Your task to perform on an android device: turn notification dots off Image 0: 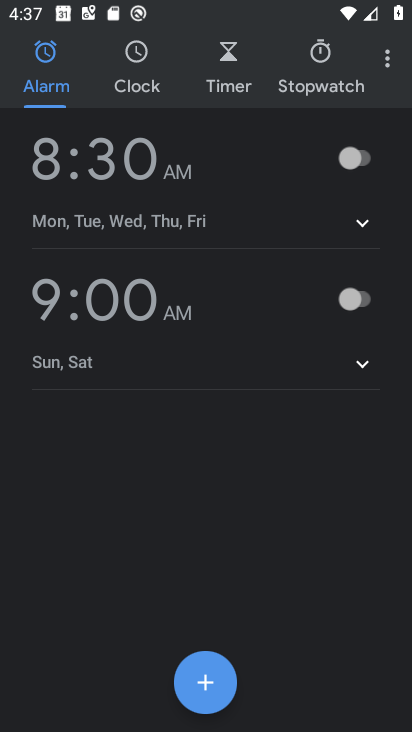
Step 0: press home button
Your task to perform on an android device: turn notification dots off Image 1: 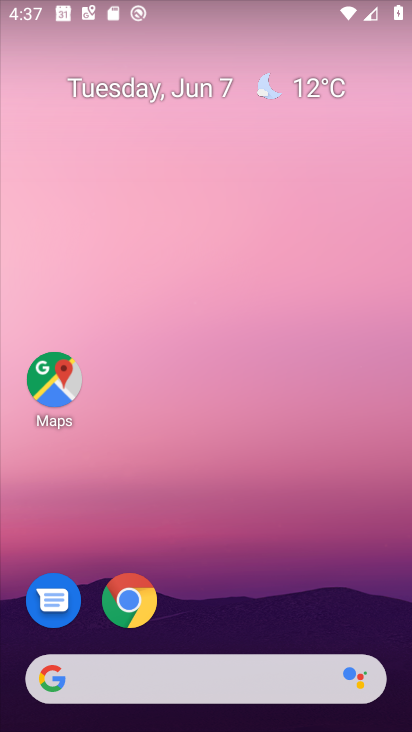
Step 1: drag from (213, 294) to (197, 132)
Your task to perform on an android device: turn notification dots off Image 2: 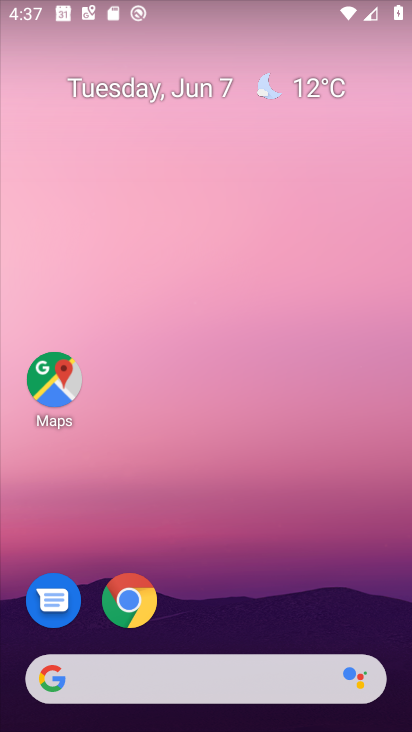
Step 2: drag from (273, 526) to (228, 172)
Your task to perform on an android device: turn notification dots off Image 3: 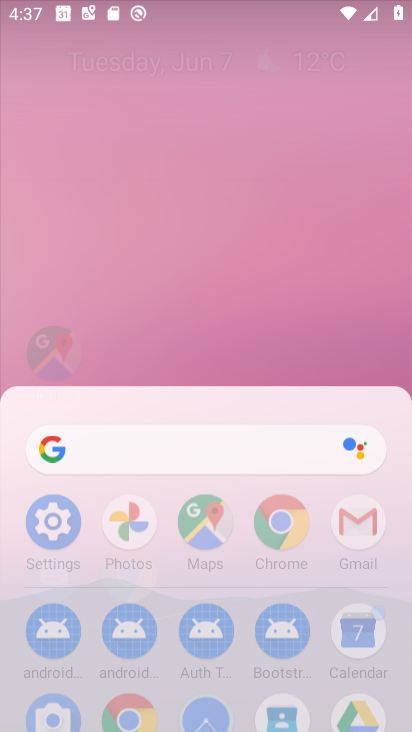
Step 3: click (224, 120)
Your task to perform on an android device: turn notification dots off Image 4: 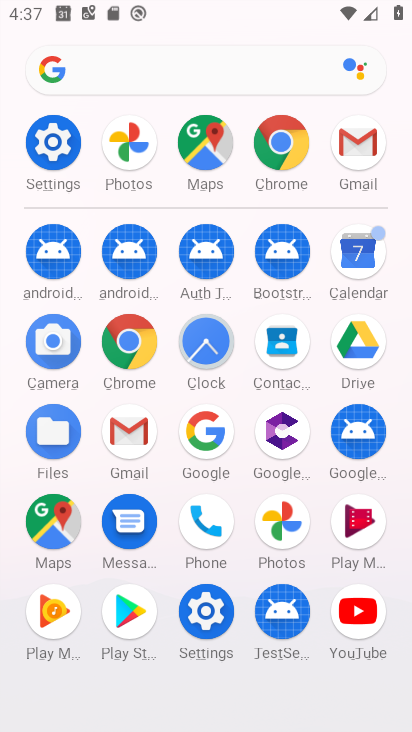
Step 4: click (47, 139)
Your task to perform on an android device: turn notification dots off Image 5: 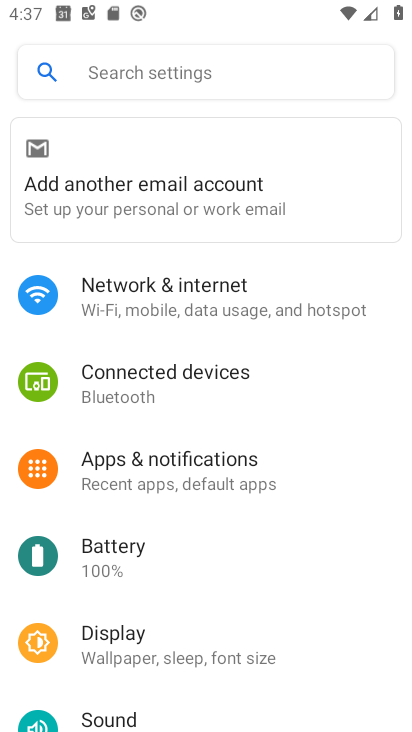
Step 5: click (196, 470)
Your task to perform on an android device: turn notification dots off Image 6: 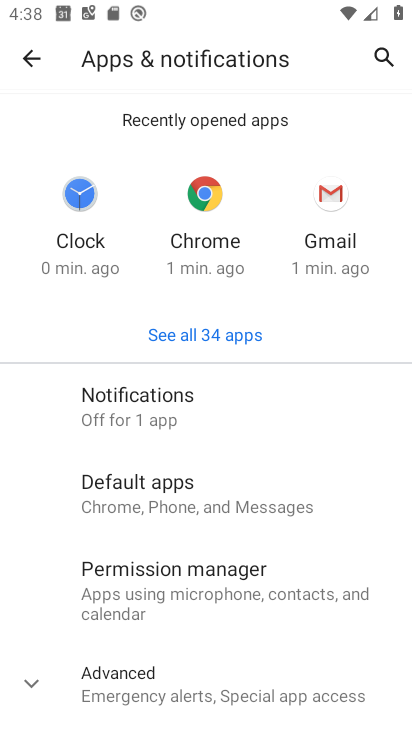
Step 6: click (192, 405)
Your task to perform on an android device: turn notification dots off Image 7: 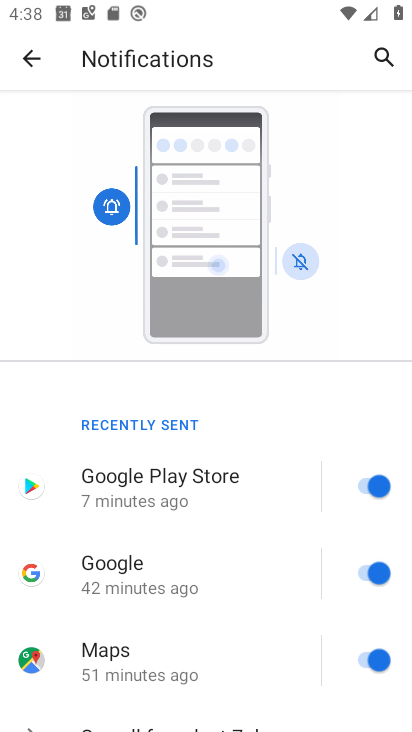
Step 7: drag from (243, 561) to (279, 50)
Your task to perform on an android device: turn notification dots off Image 8: 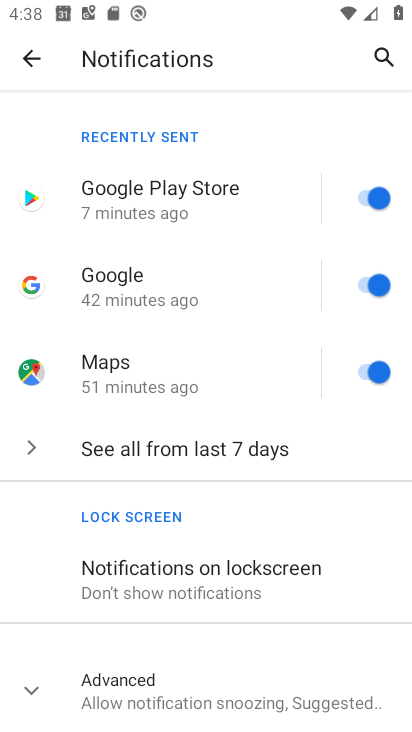
Step 8: click (212, 691)
Your task to perform on an android device: turn notification dots off Image 9: 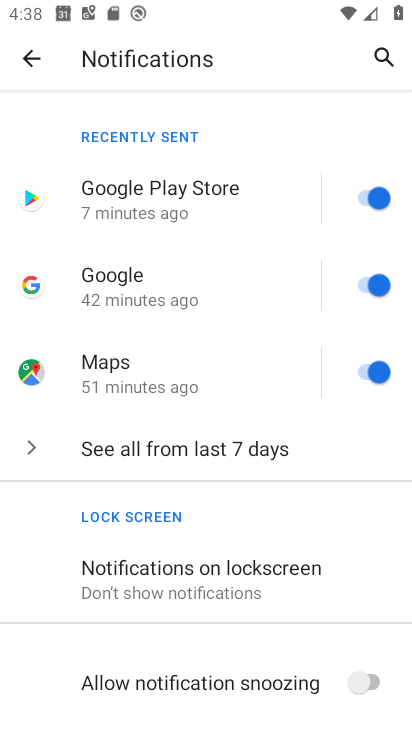
Step 9: drag from (238, 610) to (259, 192)
Your task to perform on an android device: turn notification dots off Image 10: 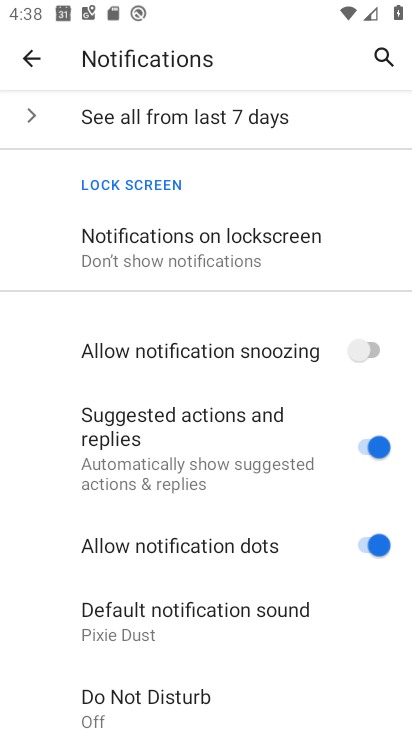
Step 10: click (368, 534)
Your task to perform on an android device: turn notification dots off Image 11: 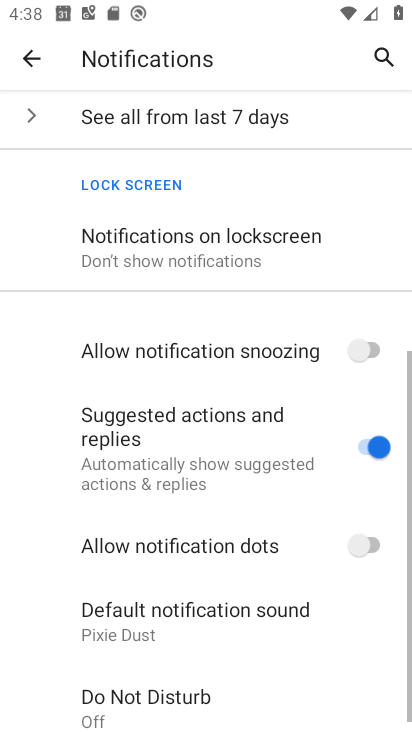
Step 11: task complete